Your task to perform on an android device: turn on bluetooth scan Image 0: 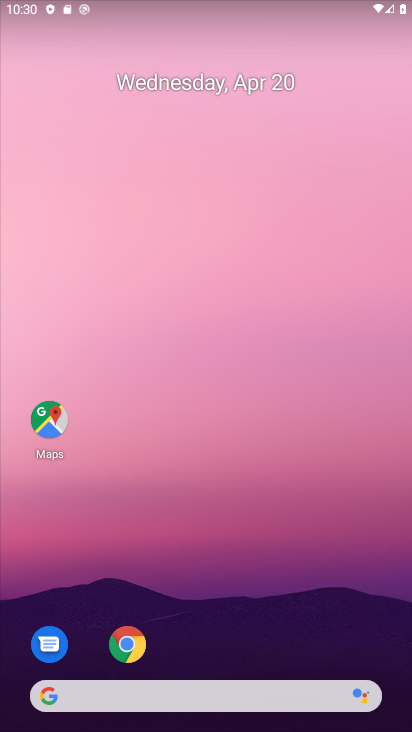
Step 0: drag from (358, 620) to (381, 175)
Your task to perform on an android device: turn on bluetooth scan Image 1: 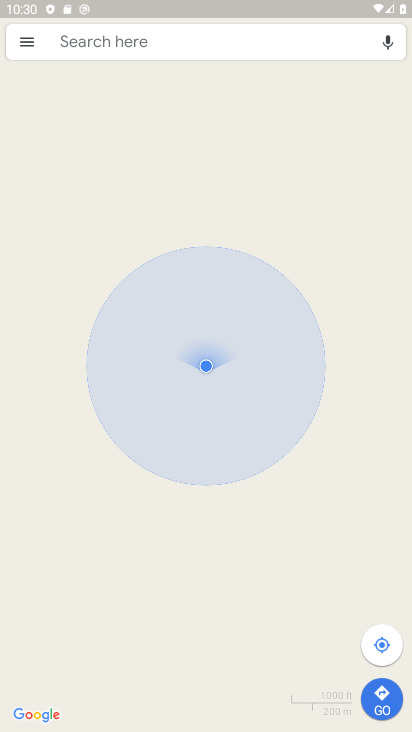
Step 1: press home button
Your task to perform on an android device: turn on bluetooth scan Image 2: 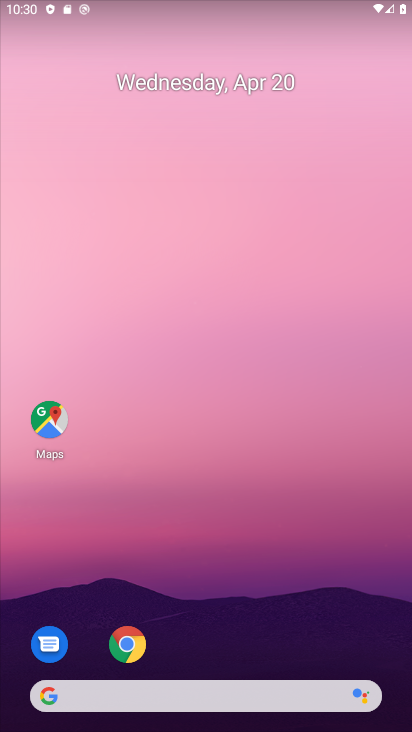
Step 2: drag from (382, 579) to (359, 251)
Your task to perform on an android device: turn on bluetooth scan Image 3: 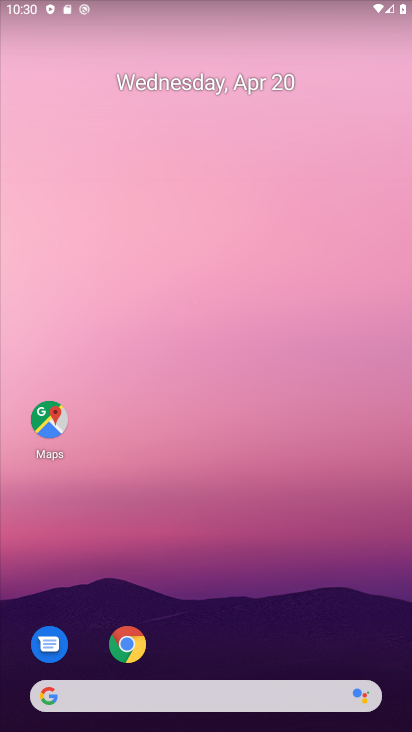
Step 3: drag from (389, 591) to (379, 155)
Your task to perform on an android device: turn on bluetooth scan Image 4: 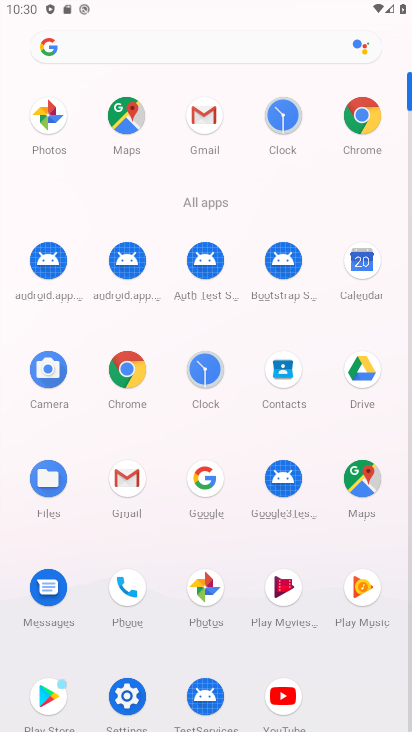
Step 4: click (138, 691)
Your task to perform on an android device: turn on bluetooth scan Image 5: 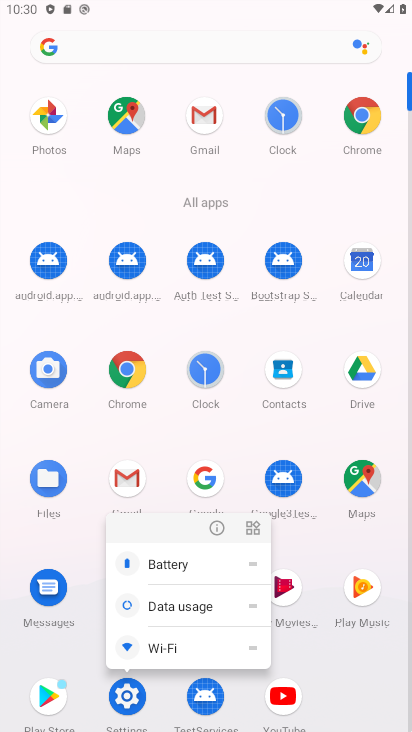
Step 5: click (130, 702)
Your task to perform on an android device: turn on bluetooth scan Image 6: 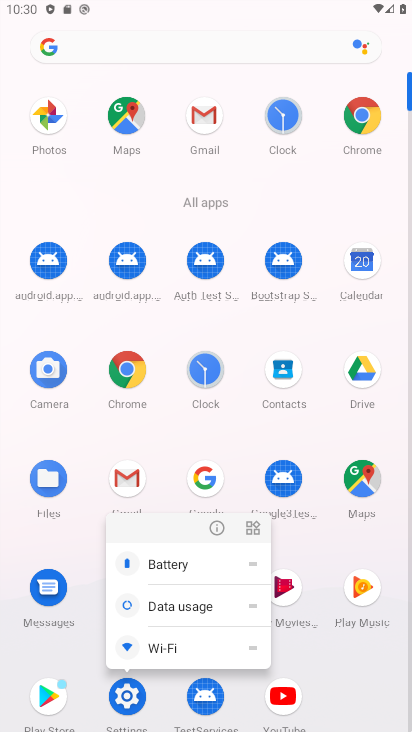
Step 6: click (125, 694)
Your task to perform on an android device: turn on bluetooth scan Image 7: 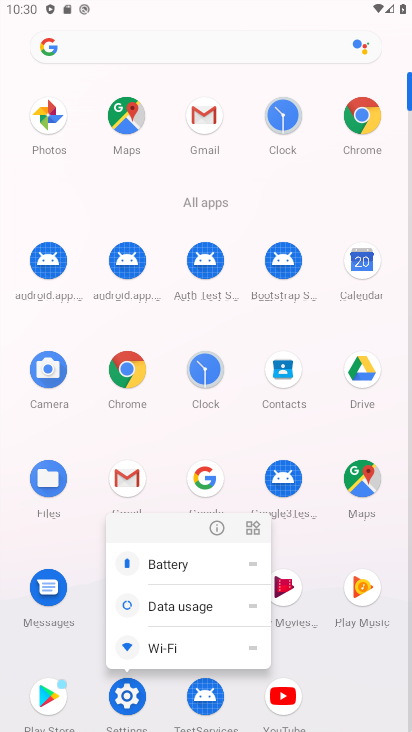
Step 7: click (130, 700)
Your task to perform on an android device: turn on bluetooth scan Image 8: 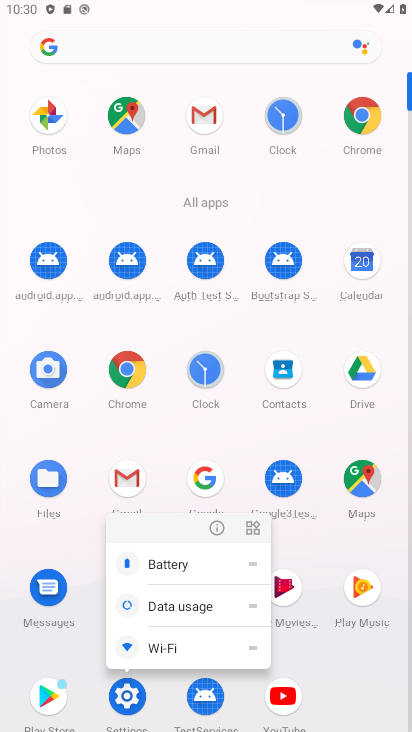
Step 8: click (128, 701)
Your task to perform on an android device: turn on bluetooth scan Image 9: 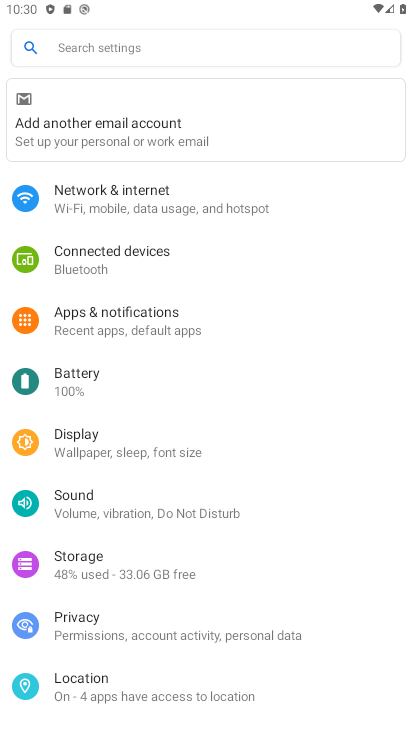
Step 9: click (132, 692)
Your task to perform on an android device: turn on bluetooth scan Image 10: 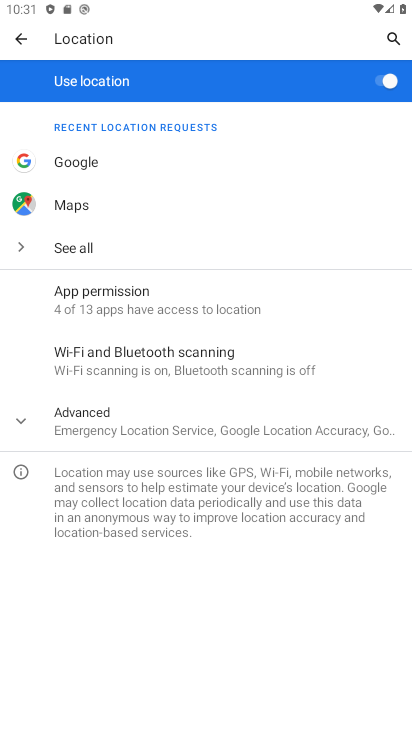
Step 10: click (149, 376)
Your task to perform on an android device: turn on bluetooth scan Image 11: 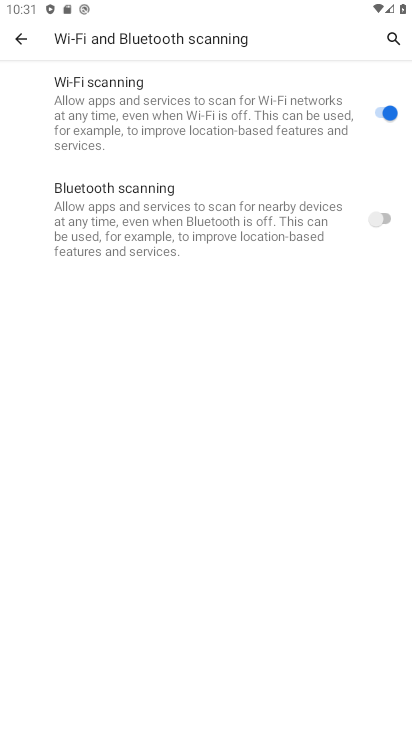
Step 11: click (386, 214)
Your task to perform on an android device: turn on bluetooth scan Image 12: 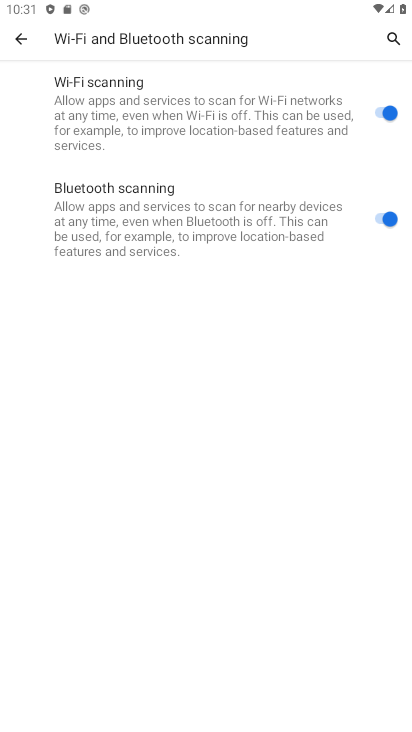
Step 12: task complete